Your task to perform on an android device: Open Reddit.com Image 0: 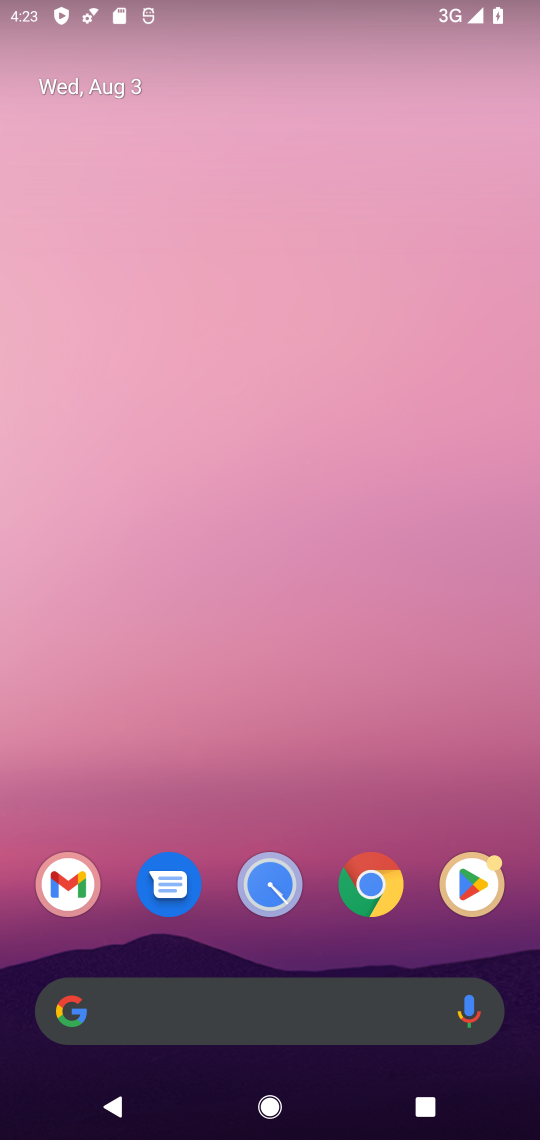
Step 0: click (397, 885)
Your task to perform on an android device: Open Reddit.com Image 1: 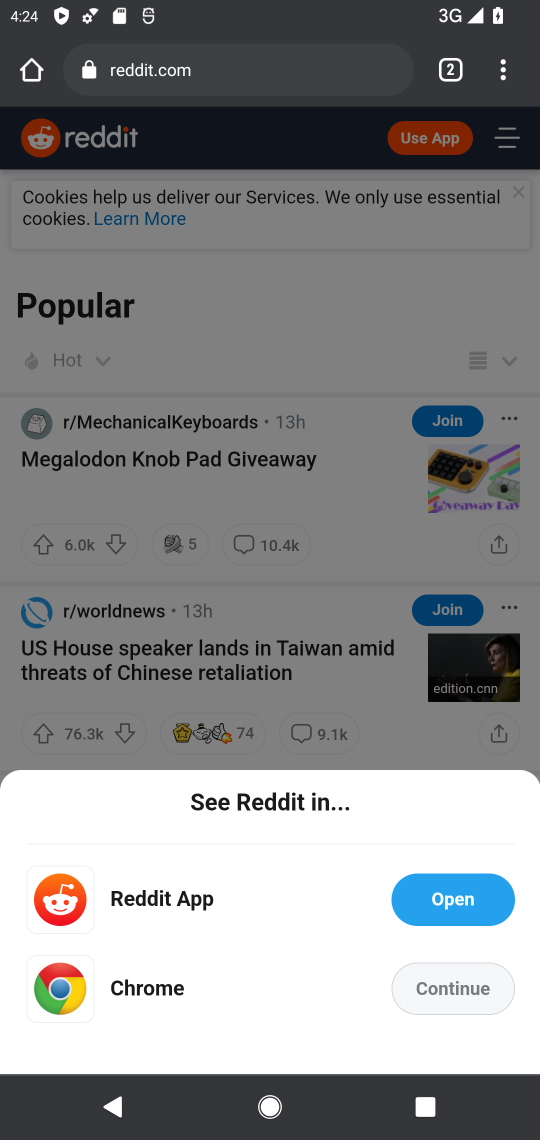
Step 1: task complete